Your task to perform on an android device: open chrome privacy settings Image 0: 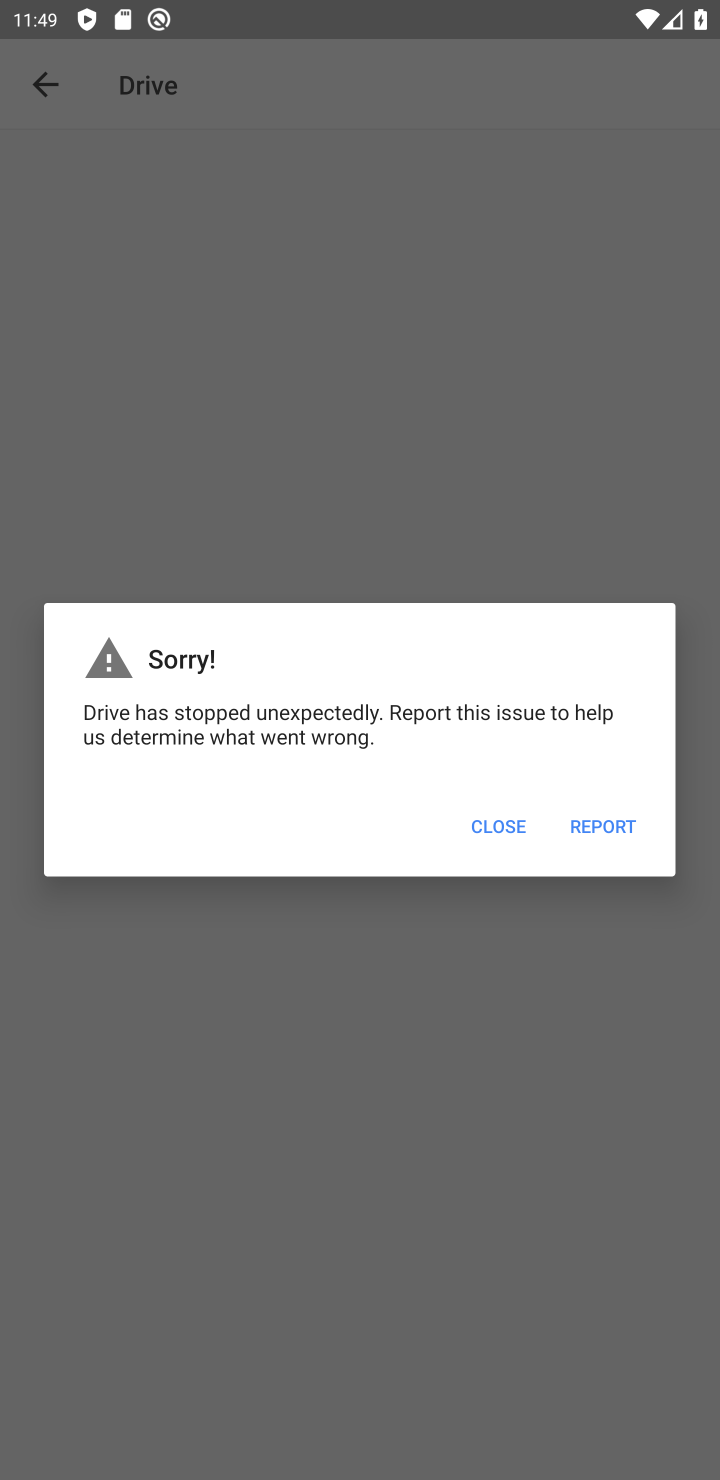
Step 0: task complete